Your task to perform on an android device: turn on notifications settings in the gmail app Image 0: 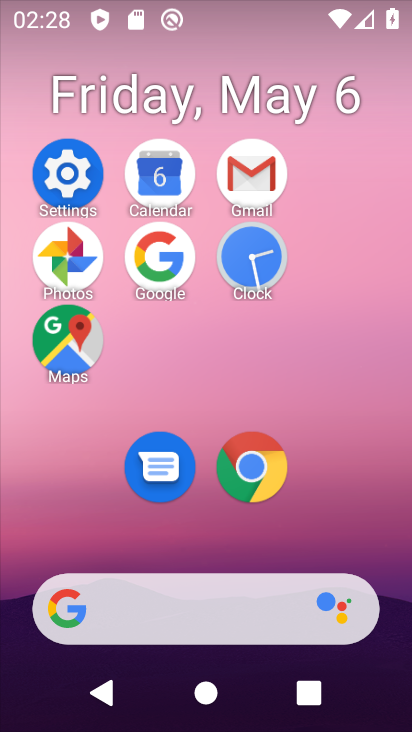
Step 0: click (238, 179)
Your task to perform on an android device: turn on notifications settings in the gmail app Image 1: 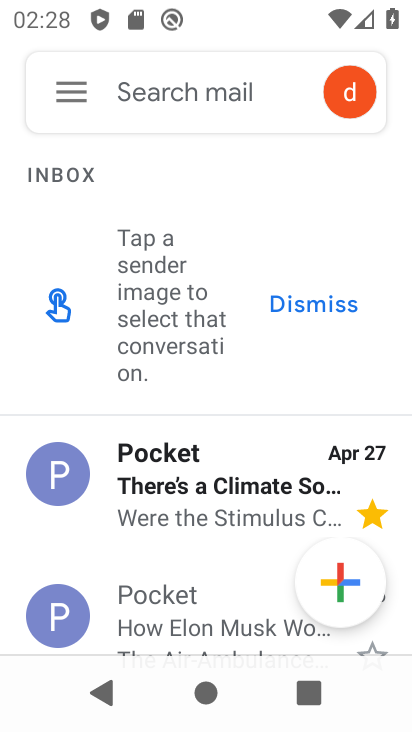
Step 1: click (87, 92)
Your task to perform on an android device: turn on notifications settings in the gmail app Image 2: 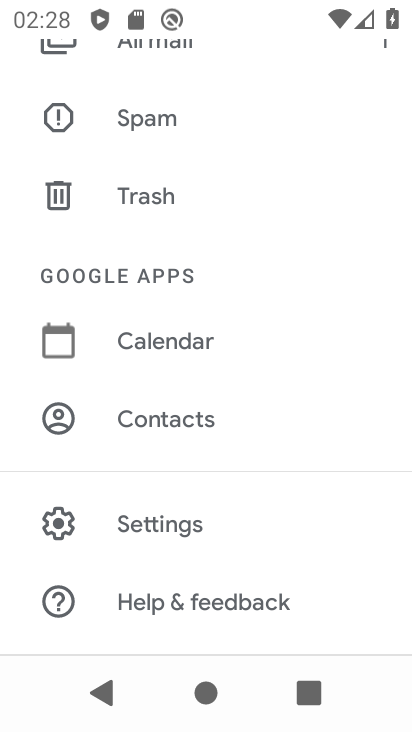
Step 2: click (256, 530)
Your task to perform on an android device: turn on notifications settings in the gmail app Image 3: 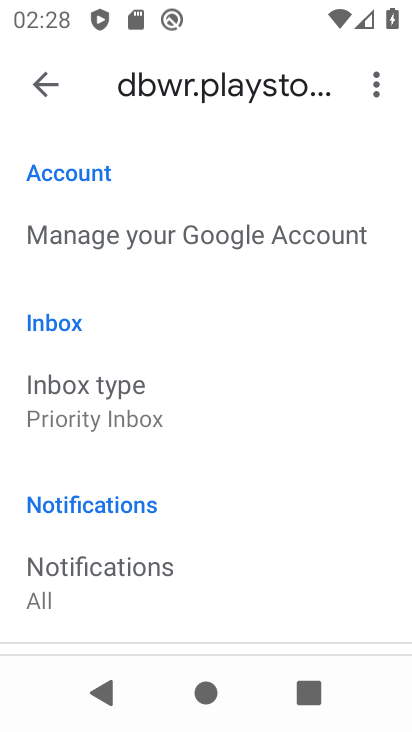
Step 3: click (62, 564)
Your task to perform on an android device: turn on notifications settings in the gmail app Image 4: 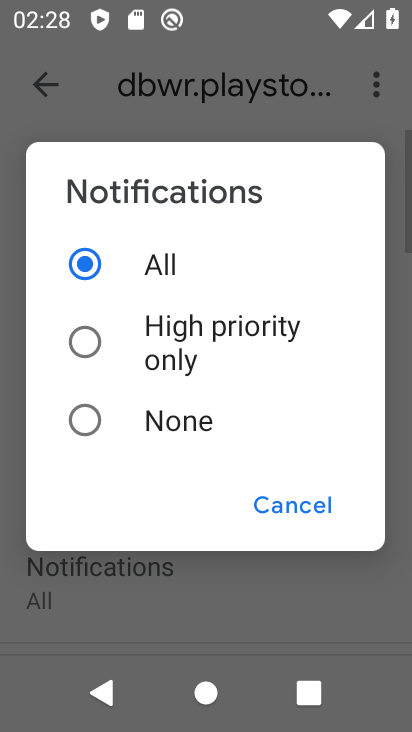
Step 4: task complete